Your task to perform on an android device: open app "ZOOM Cloud Meetings" (install if not already installed) Image 0: 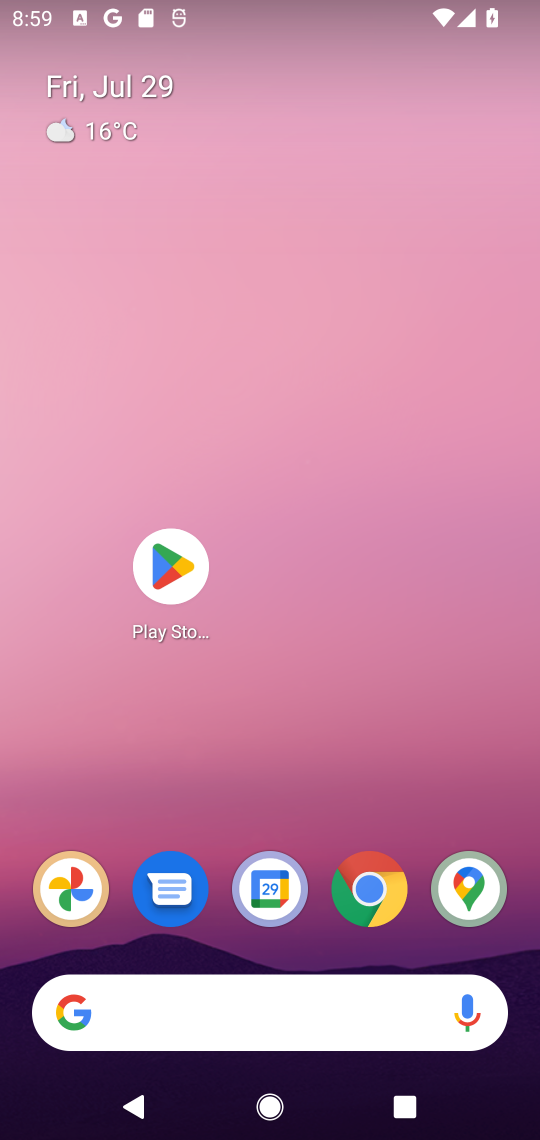
Step 0: press home button
Your task to perform on an android device: open app "ZOOM Cloud Meetings" (install if not already installed) Image 1: 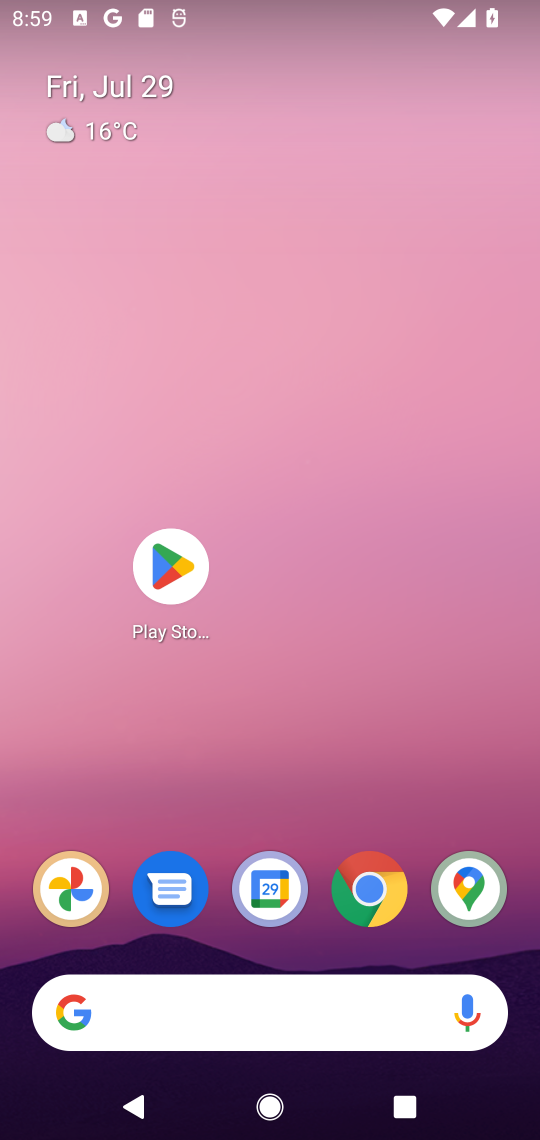
Step 1: click (183, 562)
Your task to perform on an android device: open app "ZOOM Cloud Meetings" (install if not already installed) Image 2: 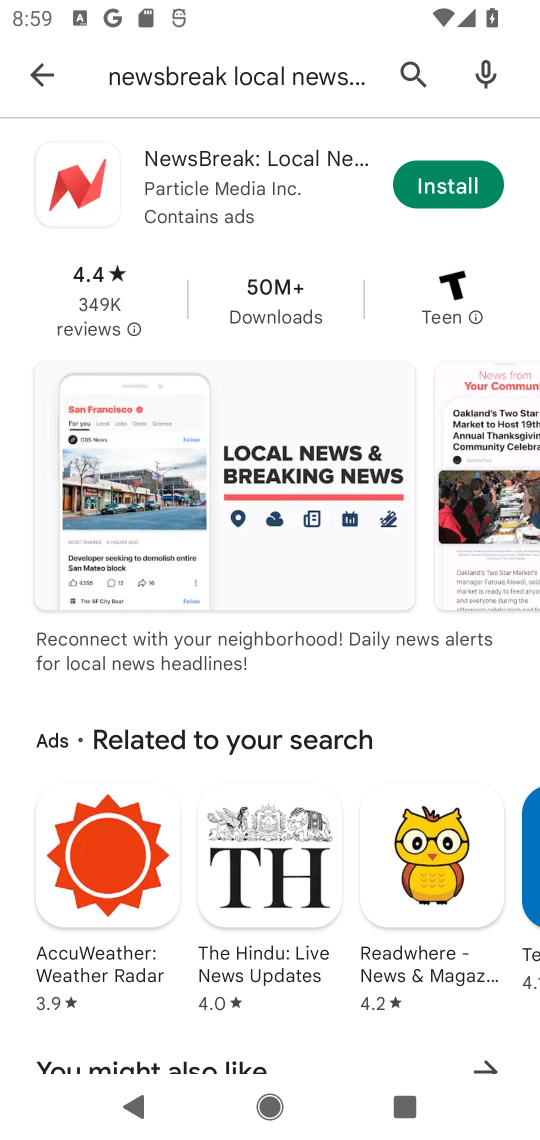
Step 2: click (405, 68)
Your task to perform on an android device: open app "ZOOM Cloud Meetings" (install if not already installed) Image 3: 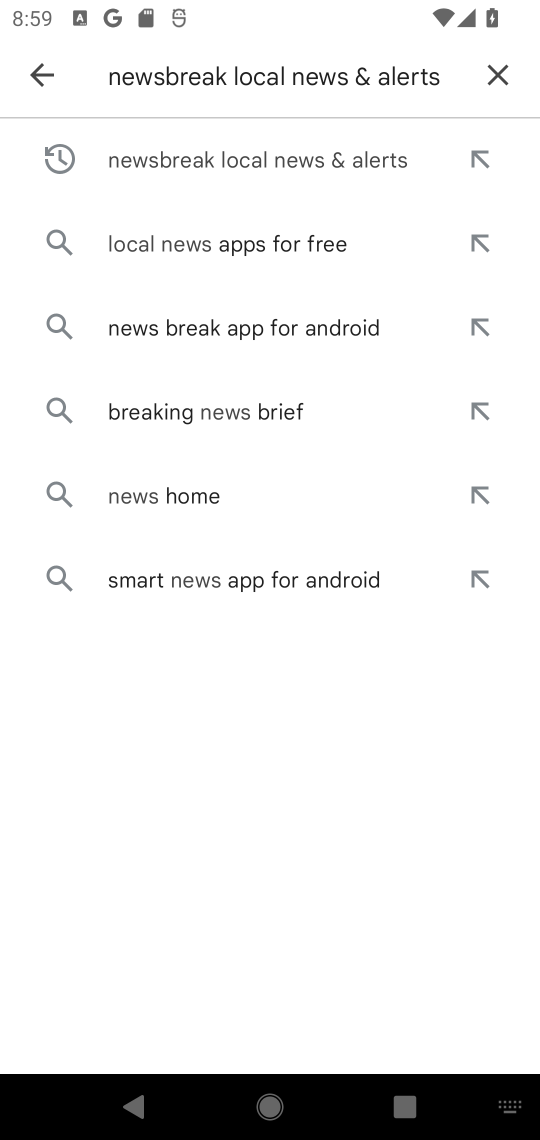
Step 3: click (498, 68)
Your task to perform on an android device: open app "ZOOM Cloud Meetings" (install if not already installed) Image 4: 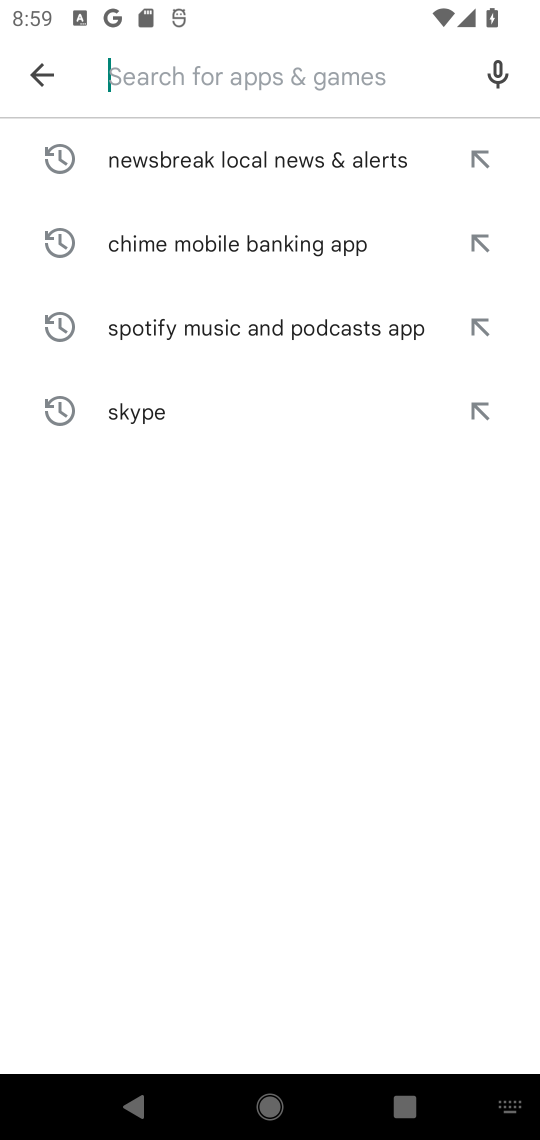
Step 4: type "ZOOM Cloud Meetings"
Your task to perform on an android device: open app "ZOOM Cloud Meetings" (install if not already installed) Image 5: 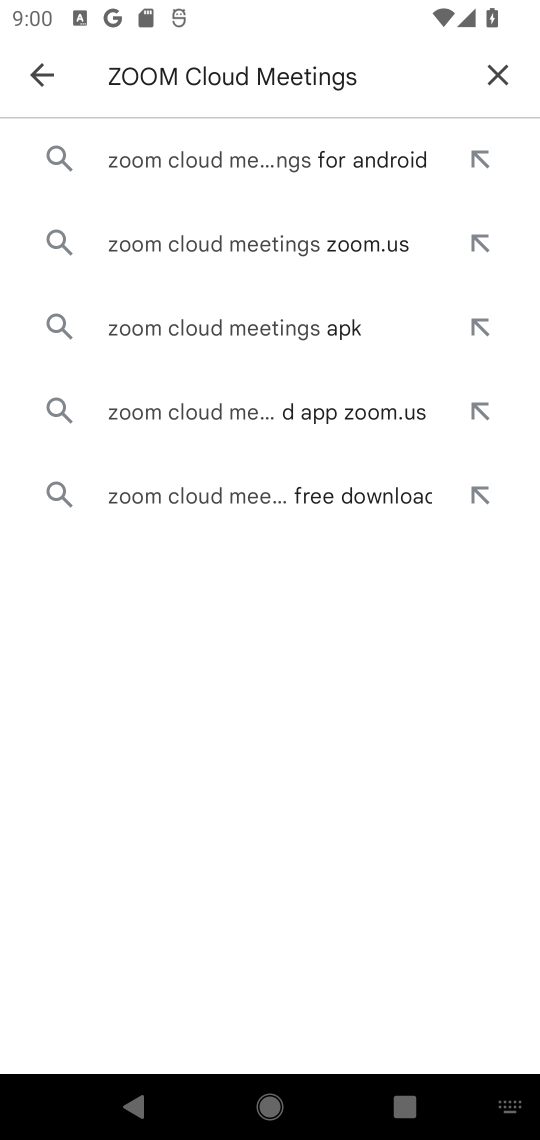
Step 5: click (336, 163)
Your task to perform on an android device: open app "ZOOM Cloud Meetings" (install if not already installed) Image 6: 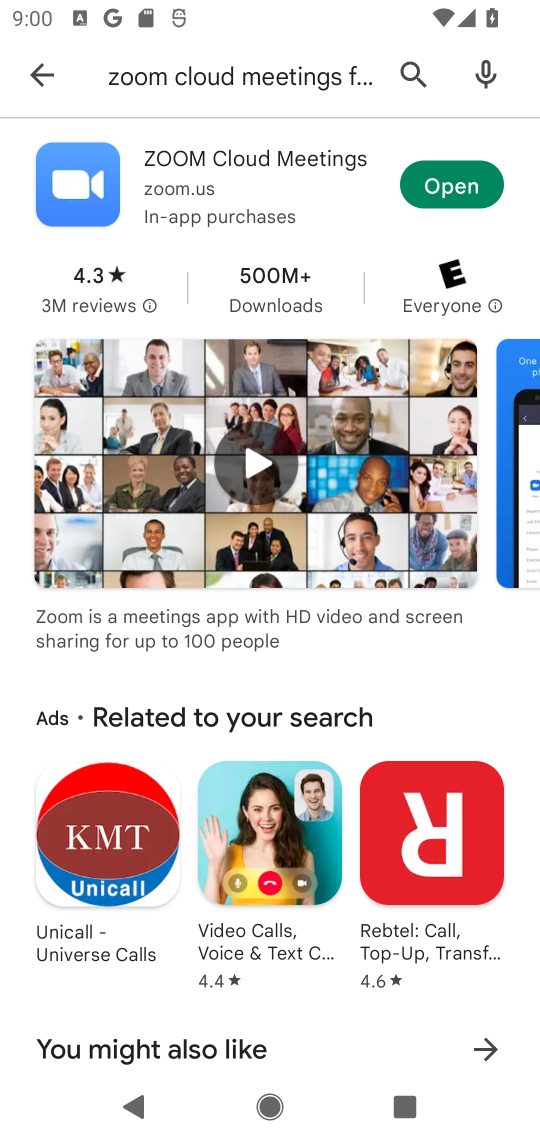
Step 6: click (462, 183)
Your task to perform on an android device: open app "ZOOM Cloud Meetings" (install if not already installed) Image 7: 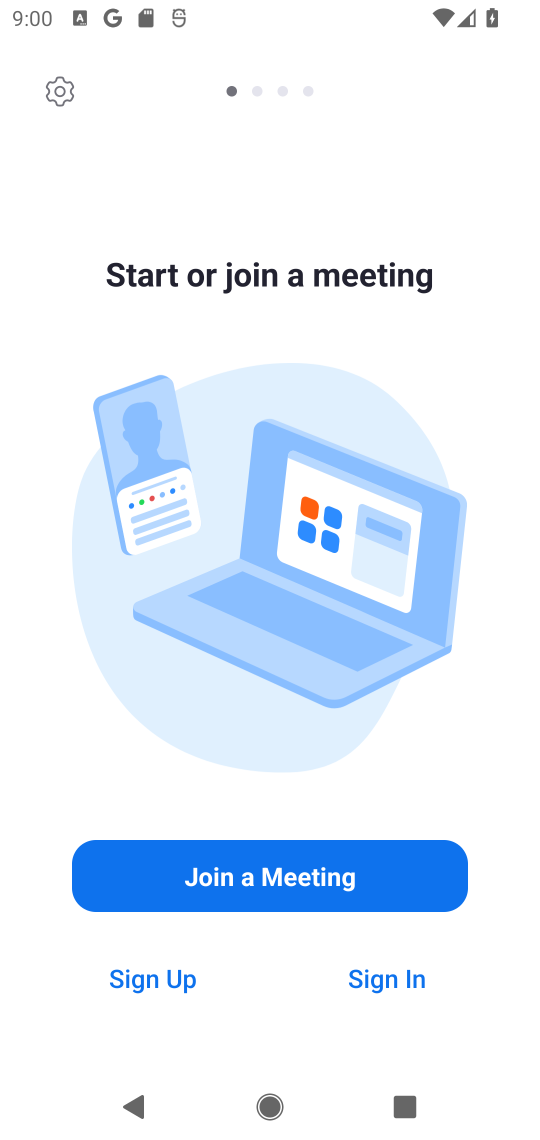
Step 7: task complete